Your task to perform on an android device: Open eBay Image 0: 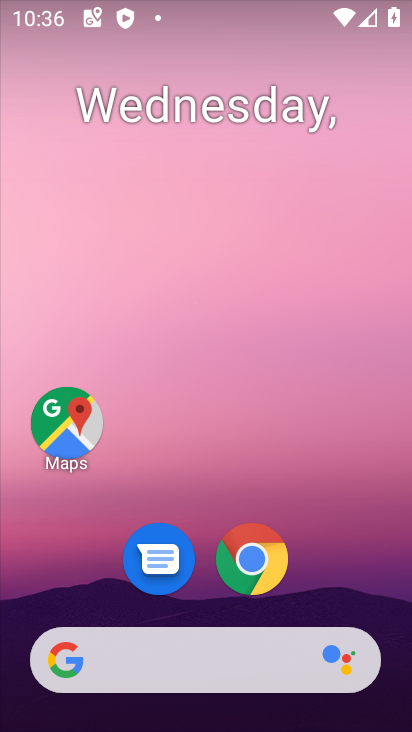
Step 0: drag from (341, 594) to (220, 206)
Your task to perform on an android device: Open eBay Image 1: 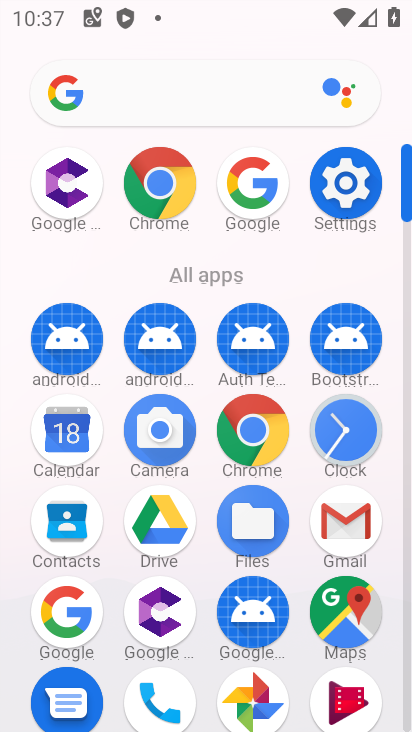
Step 1: click (247, 184)
Your task to perform on an android device: Open eBay Image 2: 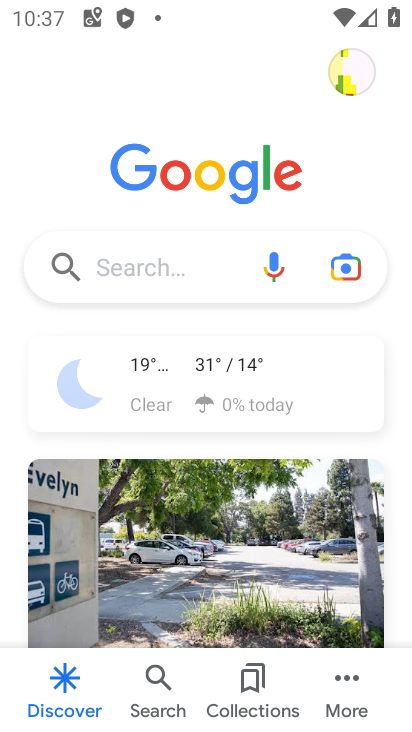
Step 2: click (160, 272)
Your task to perform on an android device: Open eBay Image 3: 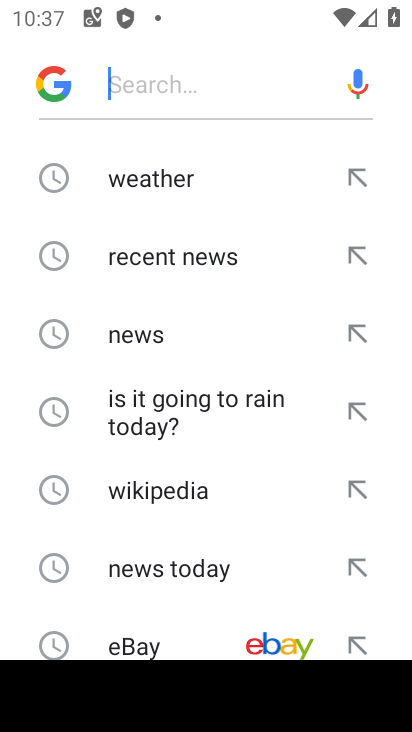
Step 3: type "eBay"
Your task to perform on an android device: Open eBay Image 4: 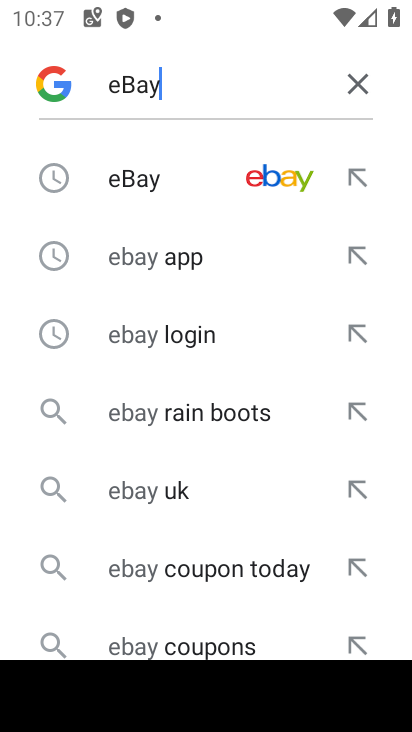
Step 4: click (133, 172)
Your task to perform on an android device: Open eBay Image 5: 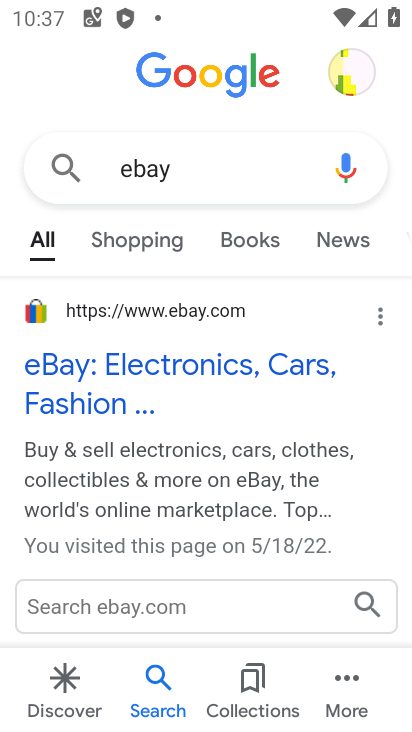
Step 5: click (248, 369)
Your task to perform on an android device: Open eBay Image 6: 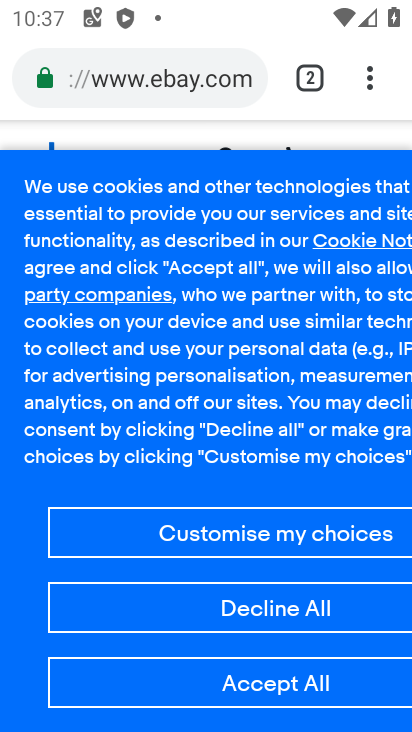
Step 6: task complete